Your task to perform on an android device: Show me the alarms in the clock app Image 0: 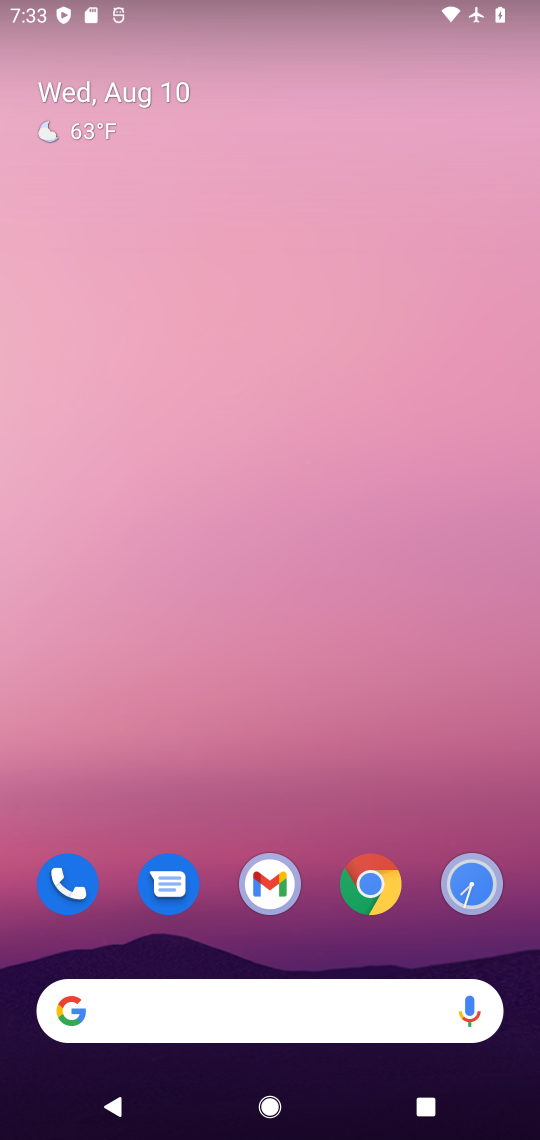
Step 0: click (469, 883)
Your task to perform on an android device: Show me the alarms in the clock app Image 1: 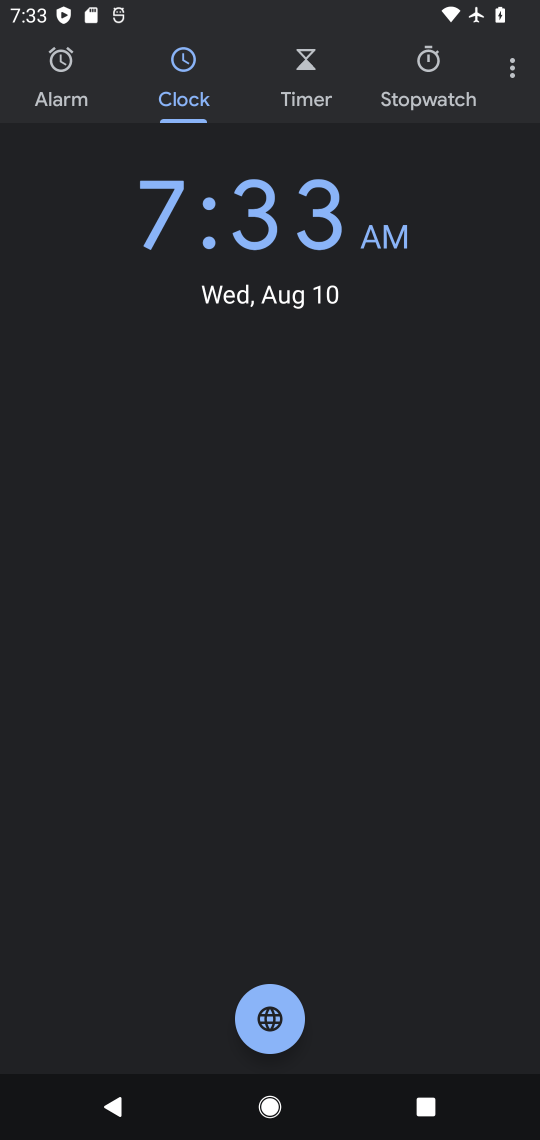
Step 1: click (51, 73)
Your task to perform on an android device: Show me the alarms in the clock app Image 2: 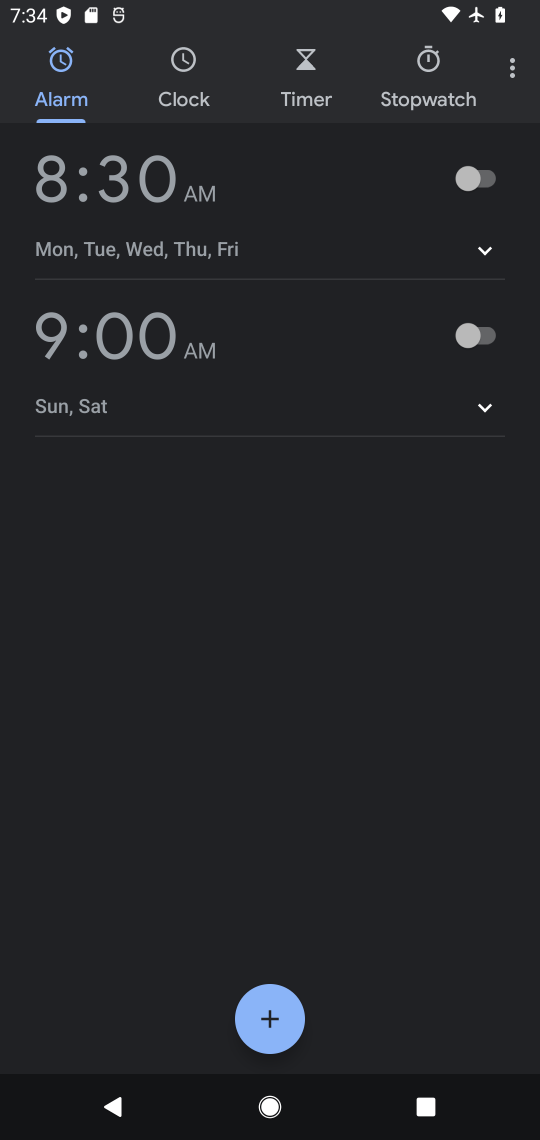
Step 2: task complete